Your task to perform on an android device: Open Amazon Image 0: 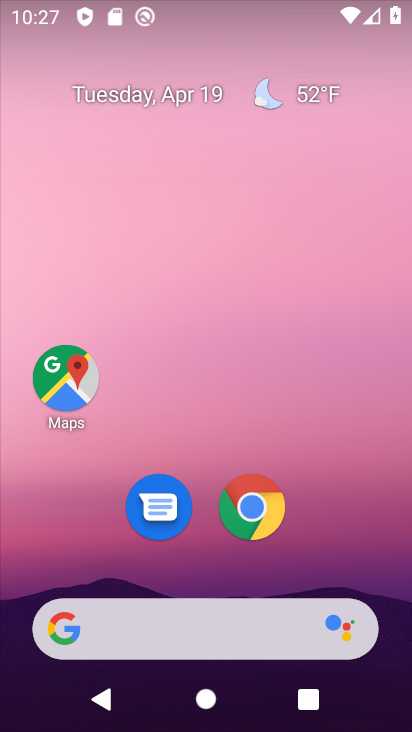
Step 0: drag from (361, 513) to (362, 85)
Your task to perform on an android device: Open Amazon Image 1: 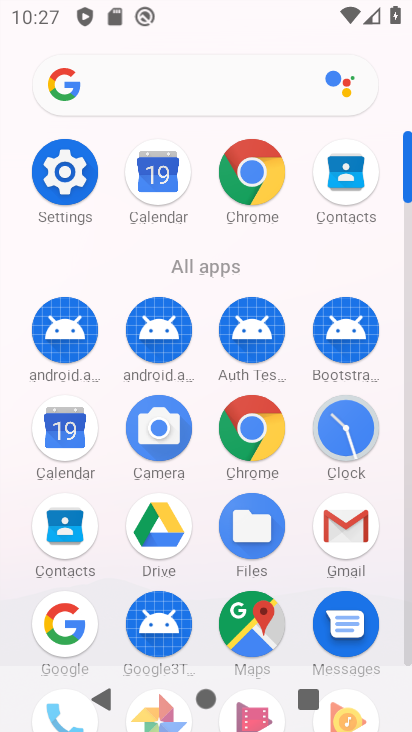
Step 1: click (260, 185)
Your task to perform on an android device: Open Amazon Image 2: 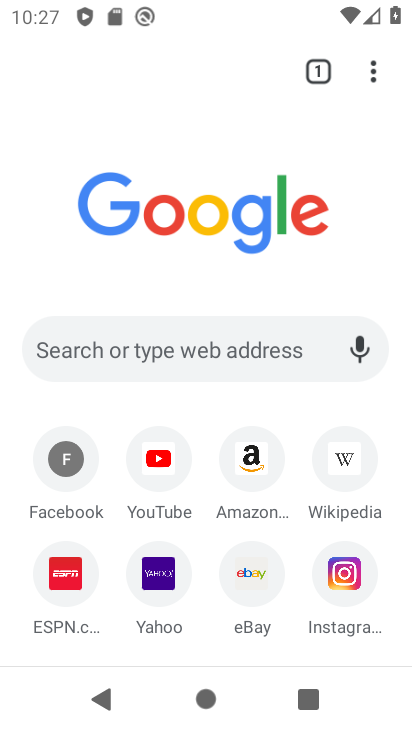
Step 2: click (255, 471)
Your task to perform on an android device: Open Amazon Image 3: 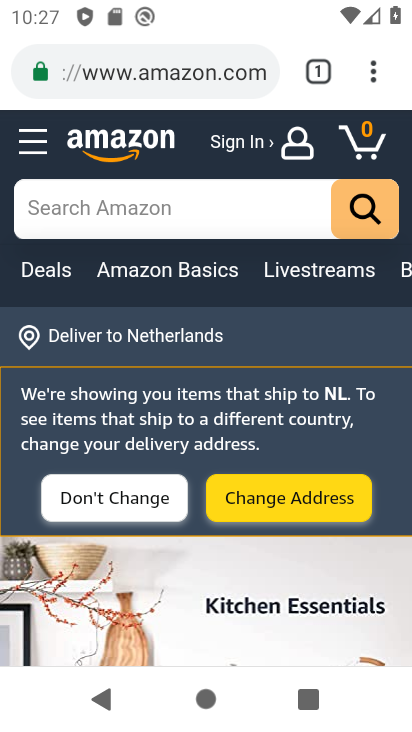
Step 3: task complete